Your task to perform on an android device: check data usage Image 0: 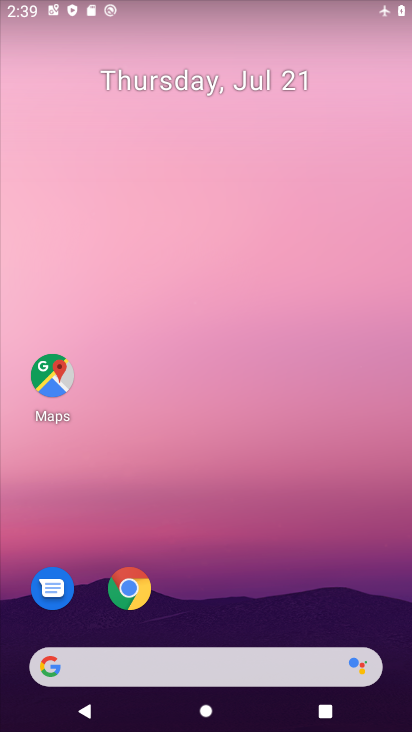
Step 0: drag from (177, 600) to (240, 129)
Your task to perform on an android device: check data usage Image 1: 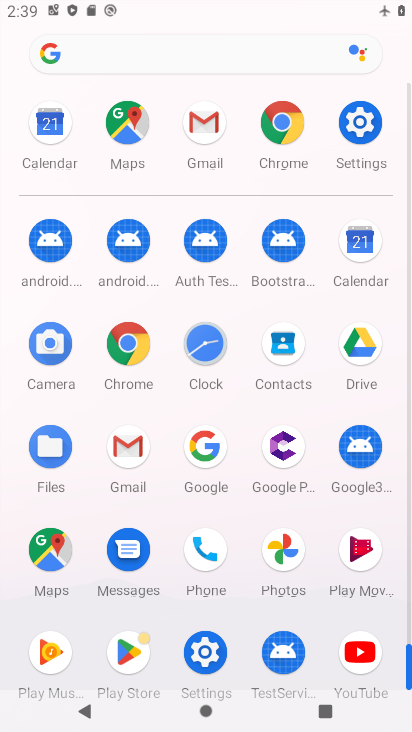
Step 1: drag from (234, 616) to (245, 486)
Your task to perform on an android device: check data usage Image 2: 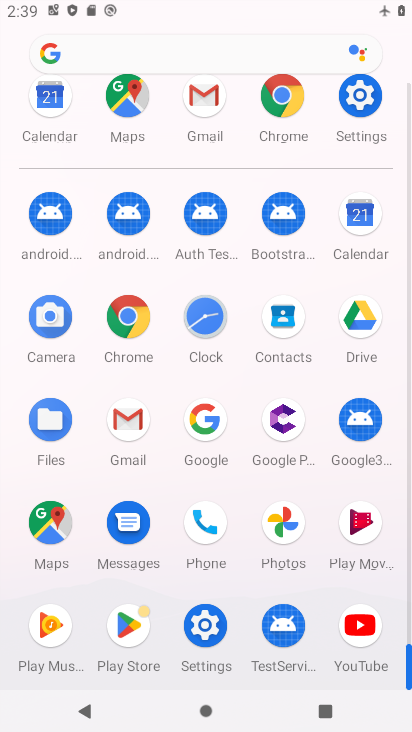
Step 2: drag from (241, 633) to (265, 499)
Your task to perform on an android device: check data usage Image 3: 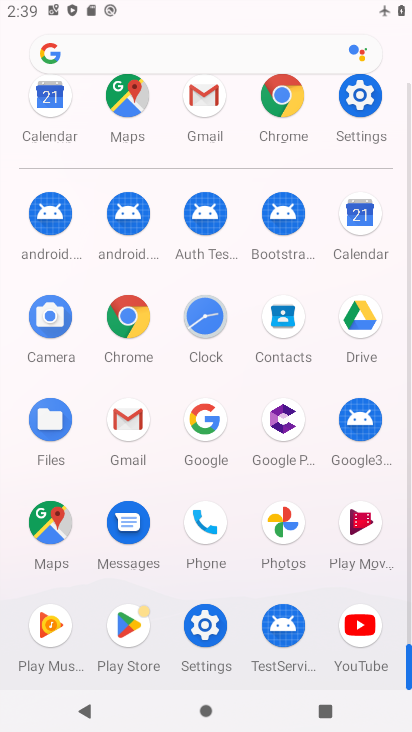
Step 3: drag from (242, 637) to (187, 256)
Your task to perform on an android device: check data usage Image 4: 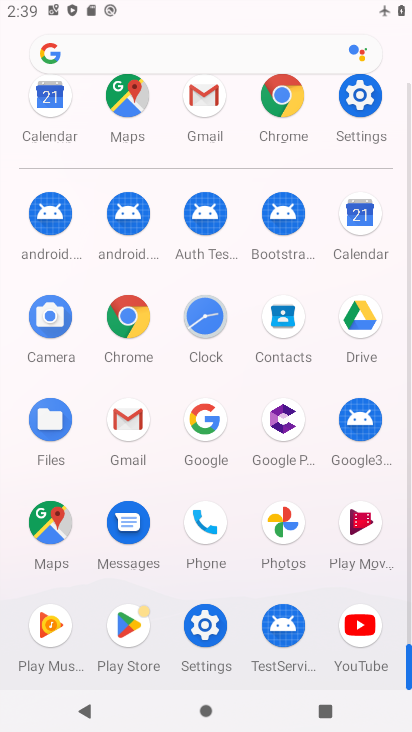
Step 4: drag from (238, 591) to (250, 387)
Your task to perform on an android device: check data usage Image 5: 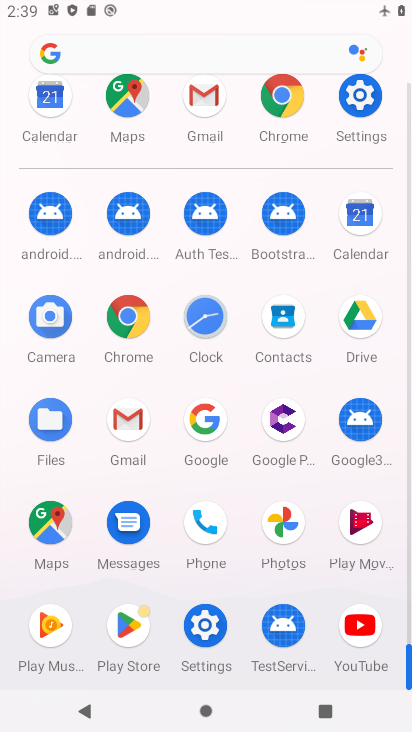
Step 5: click (195, 630)
Your task to perform on an android device: check data usage Image 6: 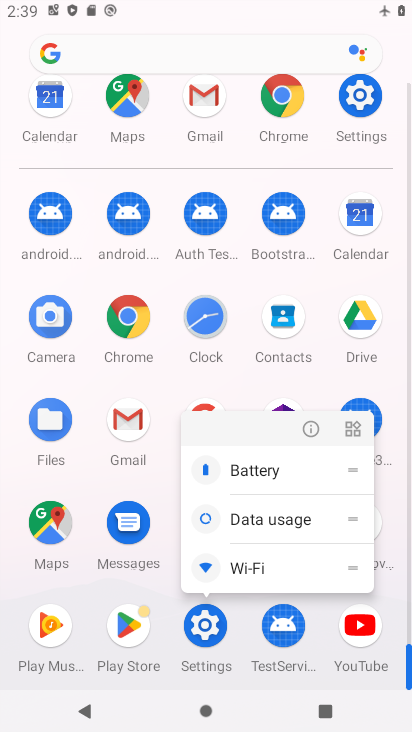
Step 6: click (308, 434)
Your task to perform on an android device: check data usage Image 7: 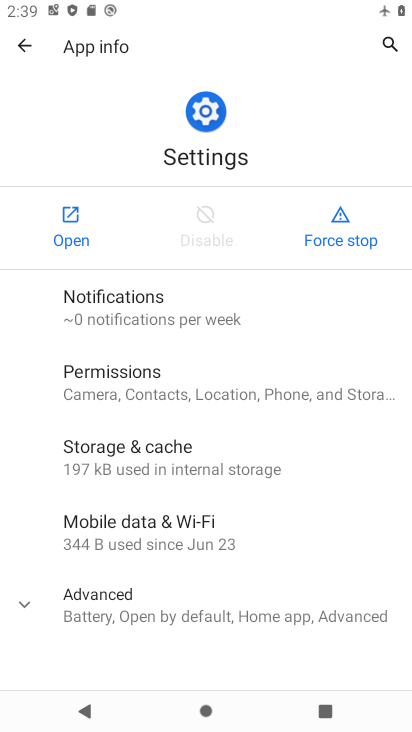
Step 7: click (46, 233)
Your task to perform on an android device: check data usage Image 8: 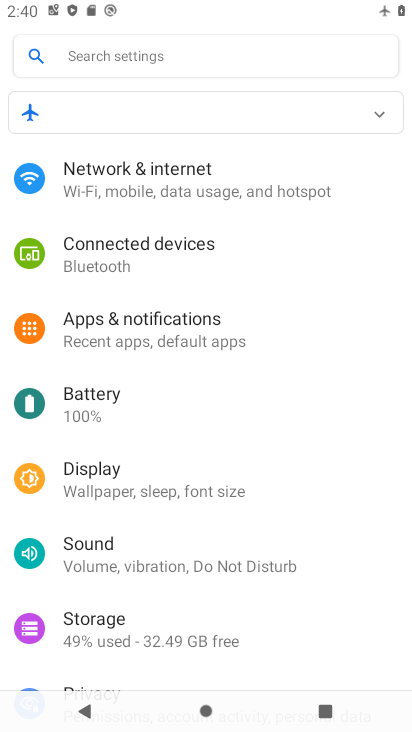
Step 8: click (185, 194)
Your task to perform on an android device: check data usage Image 9: 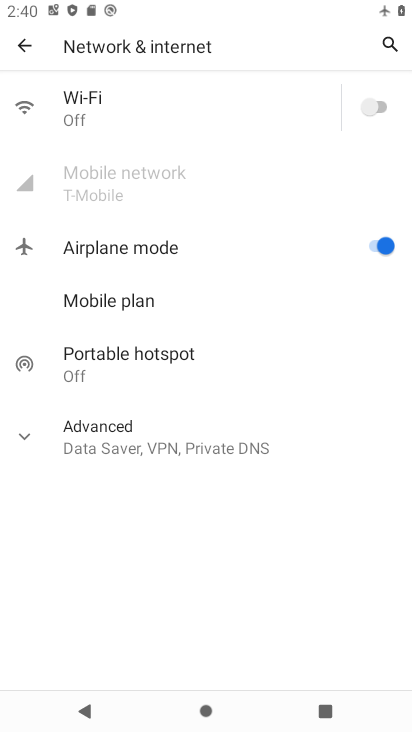
Step 9: click (125, 437)
Your task to perform on an android device: check data usage Image 10: 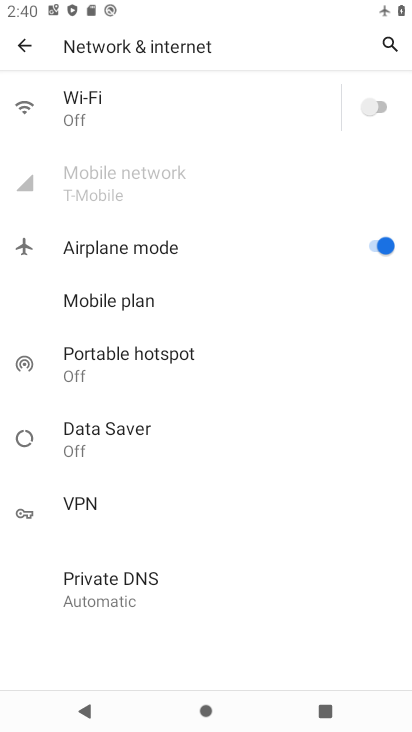
Step 10: click (187, 182)
Your task to perform on an android device: check data usage Image 11: 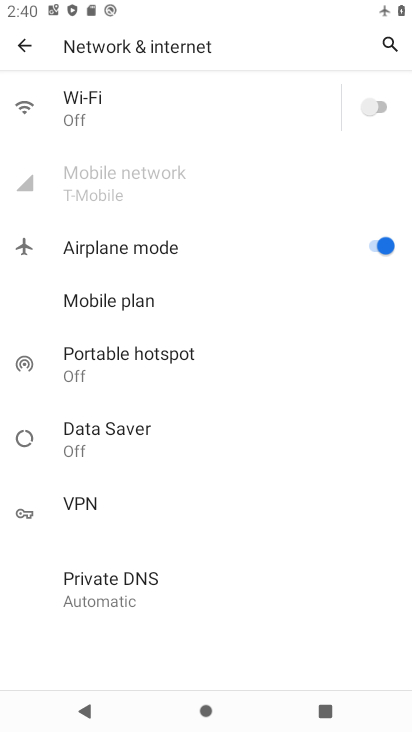
Step 11: click (374, 242)
Your task to perform on an android device: check data usage Image 12: 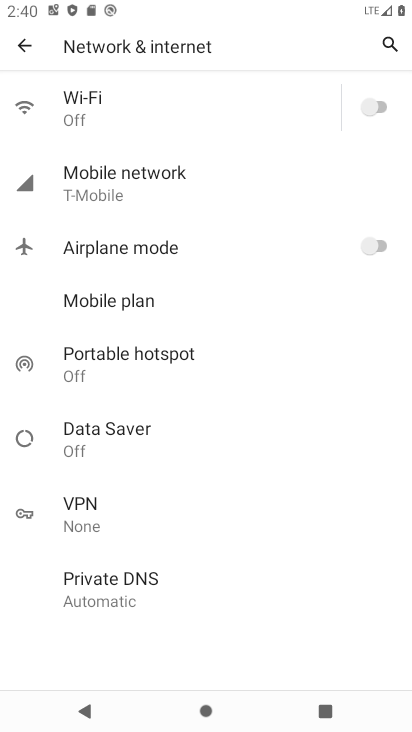
Step 12: click (150, 182)
Your task to perform on an android device: check data usage Image 13: 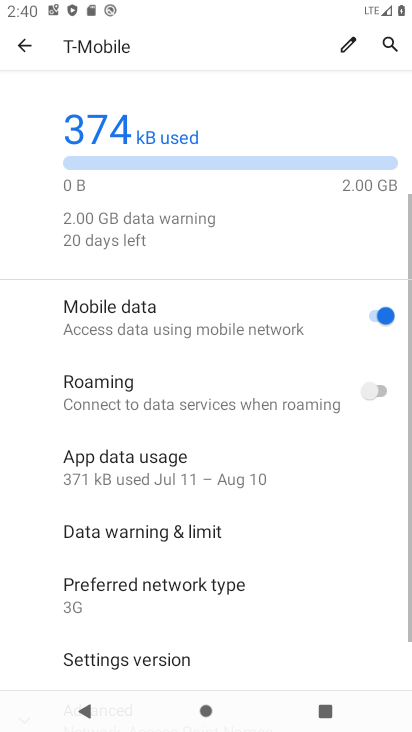
Step 13: task complete